Your task to perform on an android device: turn on wifi Image 0: 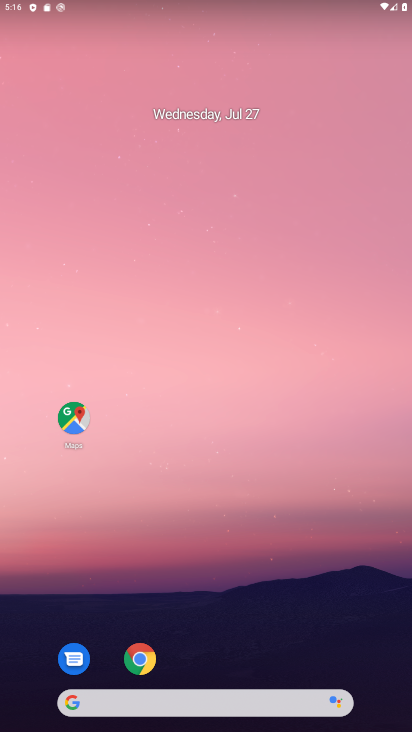
Step 0: drag from (168, 2) to (79, 467)
Your task to perform on an android device: turn on wifi Image 1: 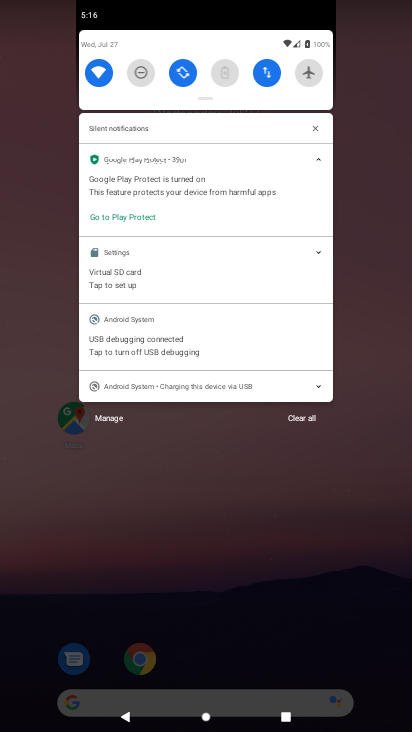
Step 1: task complete